Your task to perform on an android device: Is it going to rain today? Image 0: 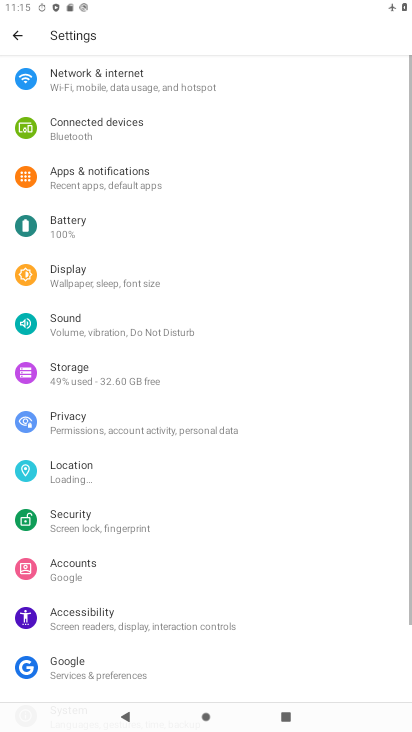
Step 0: drag from (366, 636) to (403, 240)
Your task to perform on an android device: Is it going to rain today? Image 1: 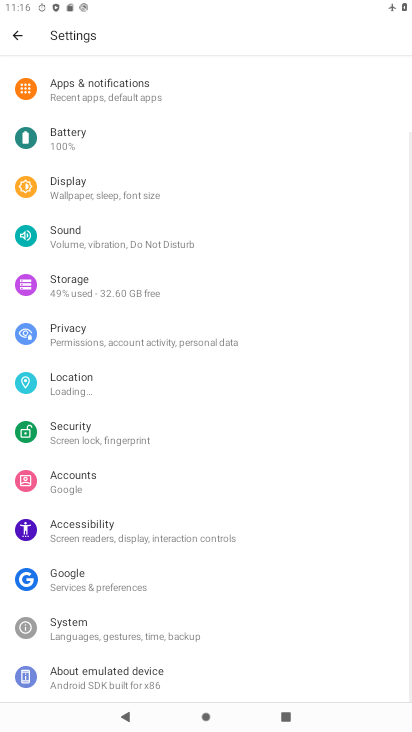
Step 1: press home button
Your task to perform on an android device: Is it going to rain today? Image 2: 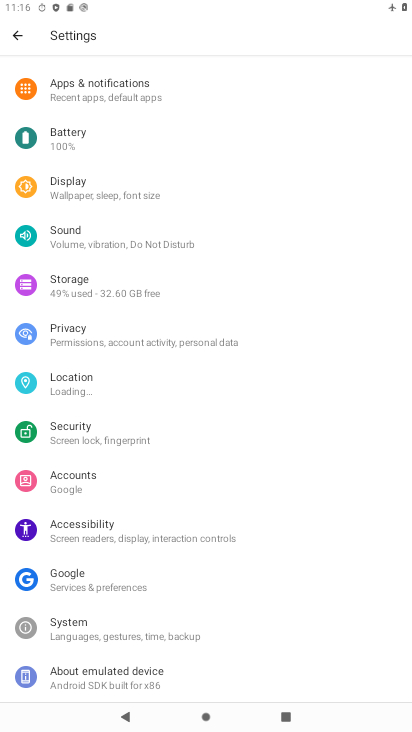
Step 2: drag from (324, 678) to (240, 77)
Your task to perform on an android device: Is it going to rain today? Image 3: 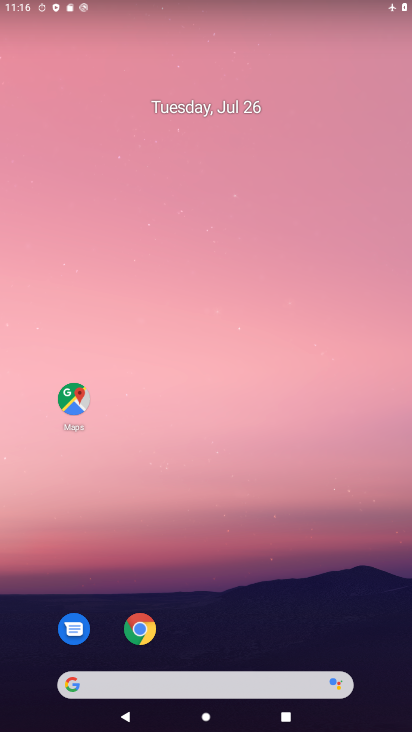
Step 3: drag from (364, 580) to (213, 56)
Your task to perform on an android device: Is it going to rain today? Image 4: 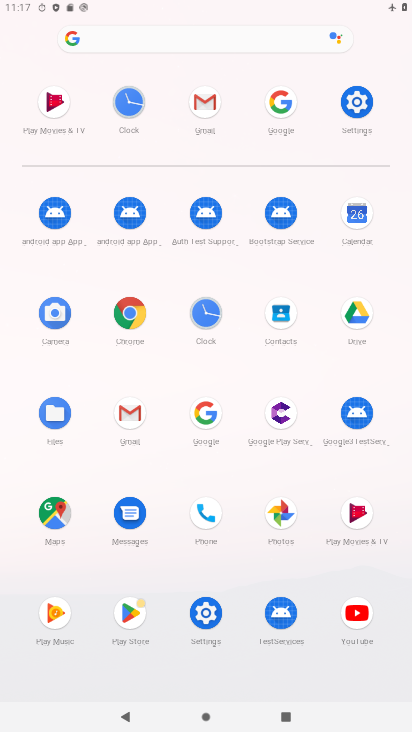
Step 4: click (195, 411)
Your task to perform on an android device: Is it going to rain today? Image 5: 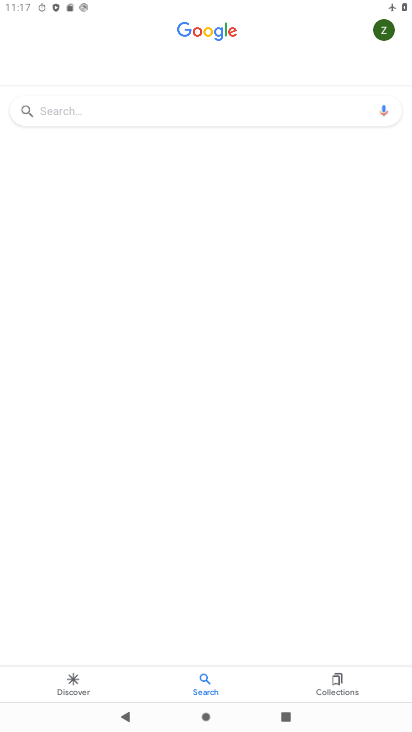
Step 5: click (112, 114)
Your task to perform on an android device: Is it going to rain today? Image 6: 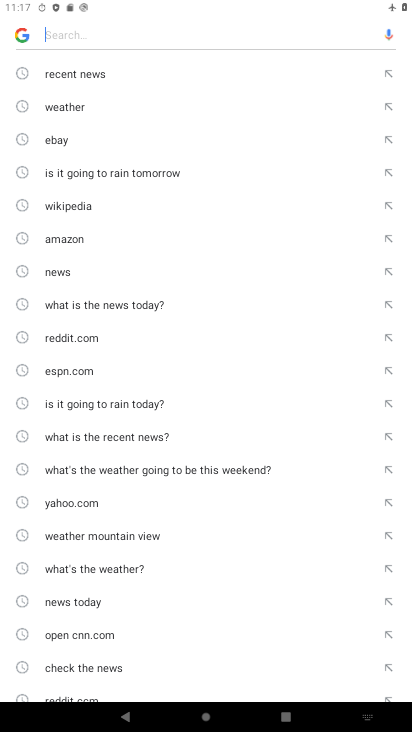
Step 6: type "Is it going to rain today?"
Your task to perform on an android device: Is it going to rain today? Image 7: 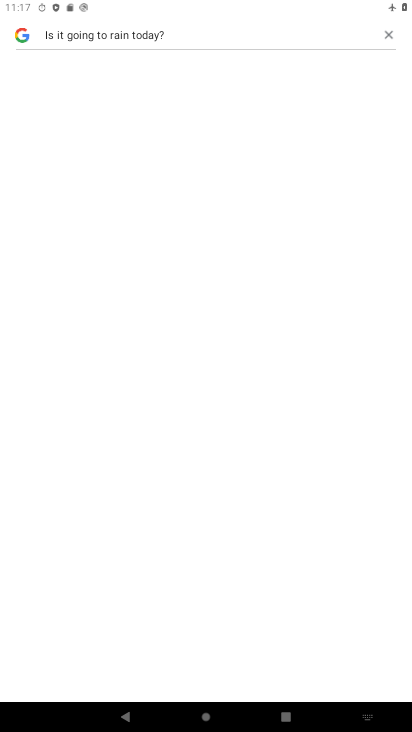
Step 7: task complete